Your task to perform on an android device: Open Reddit.com Image 0: 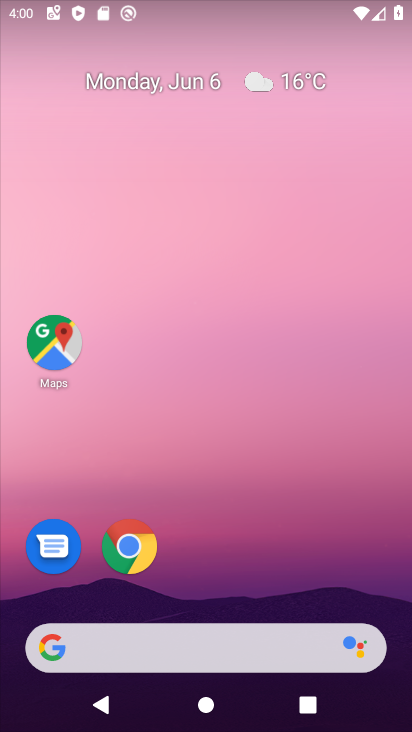
Step 0: drag from (286, 523) to (291, 8)
Your task to perform on an android device: Open Reddit.com Image 1: 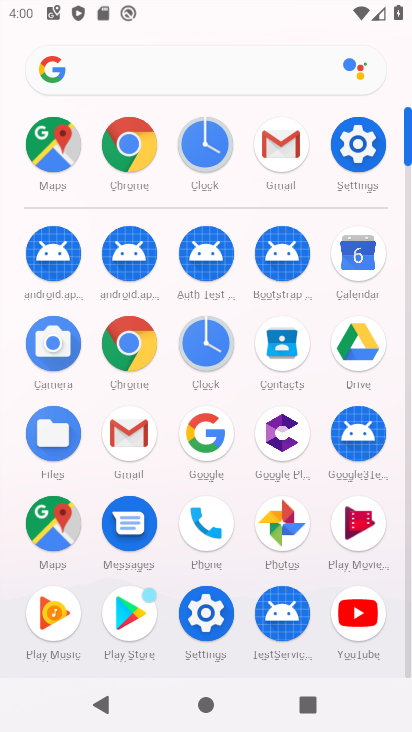
Step 1: click (137, 122)
Your task to perform on an android device: Open Reddit.com Image 2: 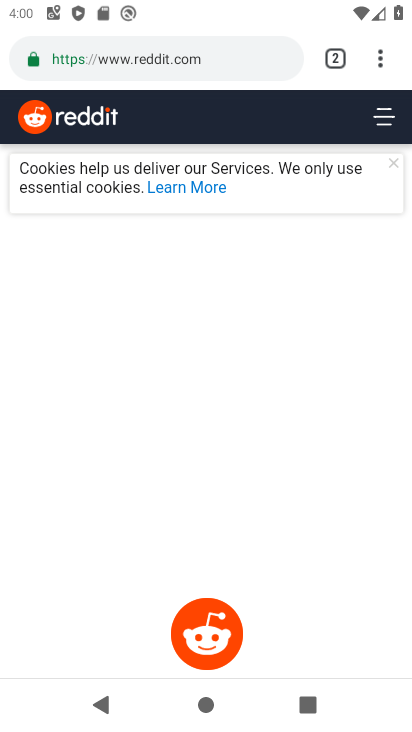
Step 2: task complete